Your task to perform on an android device: Search for seafood restaurants on Google Maps Image 0: 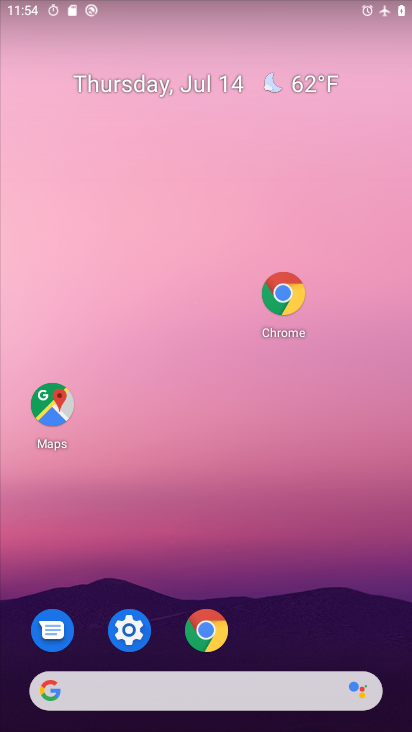
Step 0: click (254, 57)
Your task to perform on an android device: Search for seafood restaurants on Google Maps Image 1: 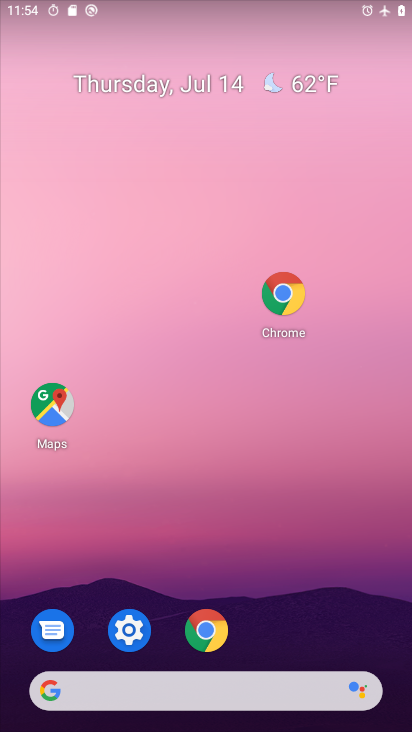
Step 1: drag from (285, 652) to (162, 18)
Your task to perform on an android device: Search for seafood restaurants on Google Maps Image 2: 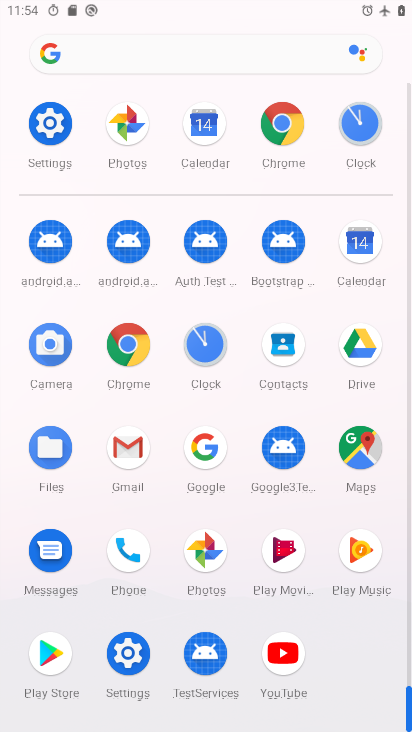
Step 2: drag from (230, 639) to (201, 68)
Your task to perform on an android device: Search for seafood restaurants on Google Maps Image 3: 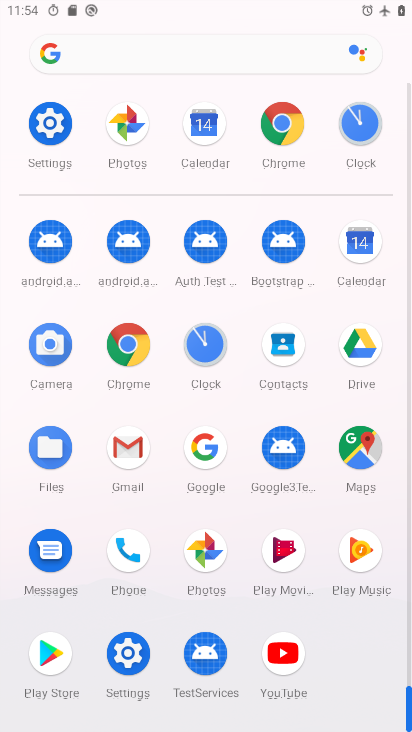
Step 3: click (356, 450)
Your task to perform on an android device: Search for seafood restaurants on Google Maps Image 4: 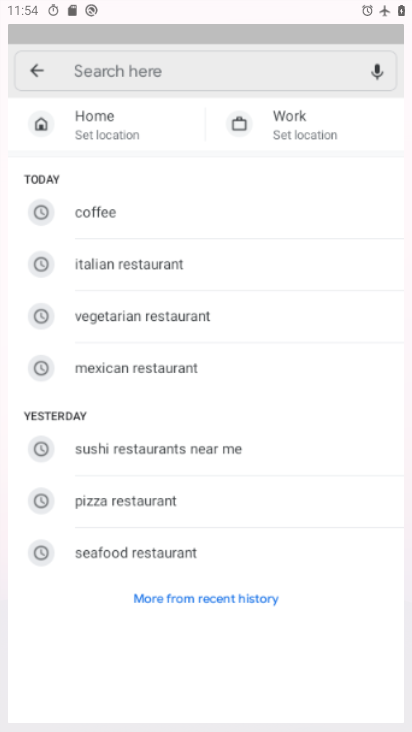
Step 4: click (359, 448)
Your task to perform on an android device: Search for seafood restaurants on Google Maps Image 5: 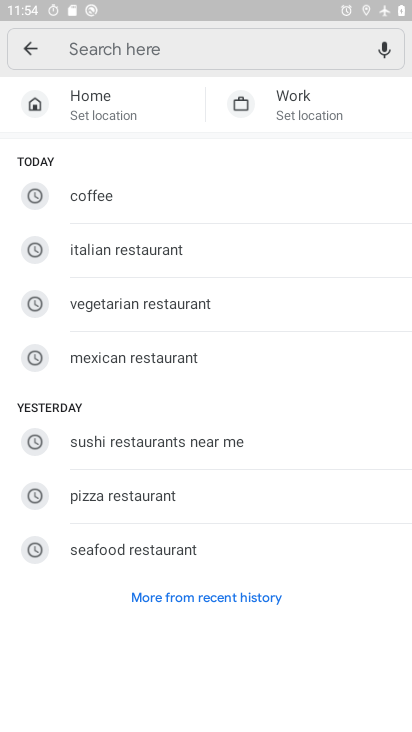
Step 5: click (159, 550)
Your task to perform on an android device: Search for seafood restaurants on Google Maps Image 6: 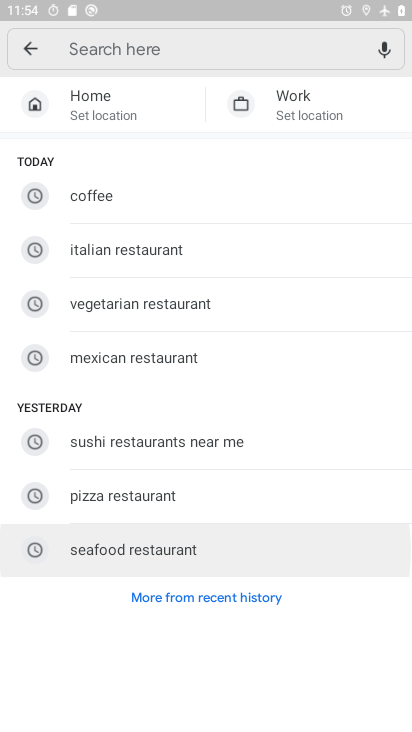
Step 6: click (159, 550)
Your task to perform on an android device: Search for seafood restaurants on Google Maps Image 7: 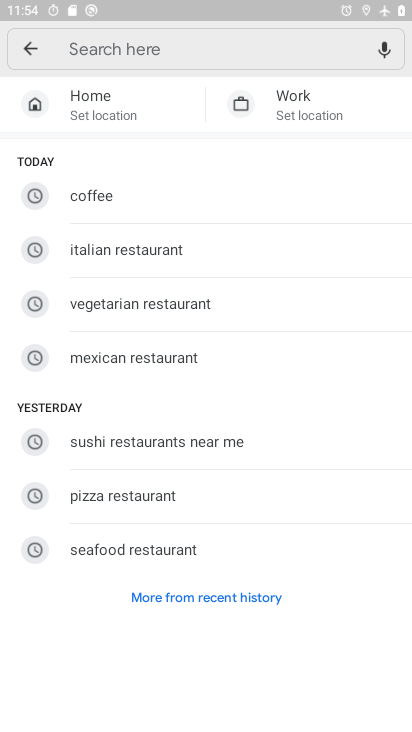
Step 7: click (162, 549)
Your task to perform on an android device: Search for seafood restaurants on Google Maps Image 8: 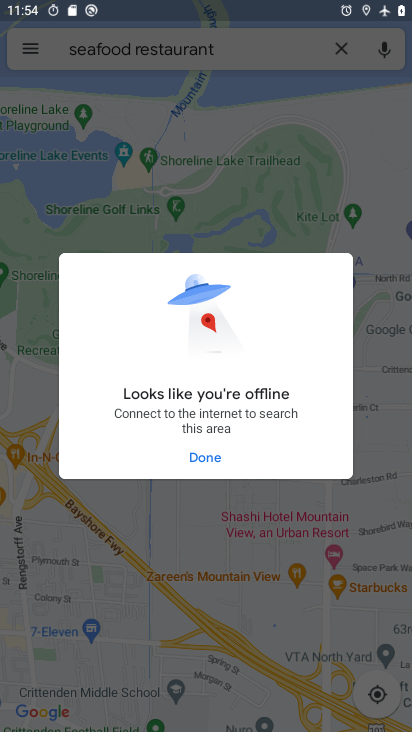
Step 8: task complete